Your task to perform on an android device: Open the calendar app, open the side menu, and click the "Day" option Image 0: 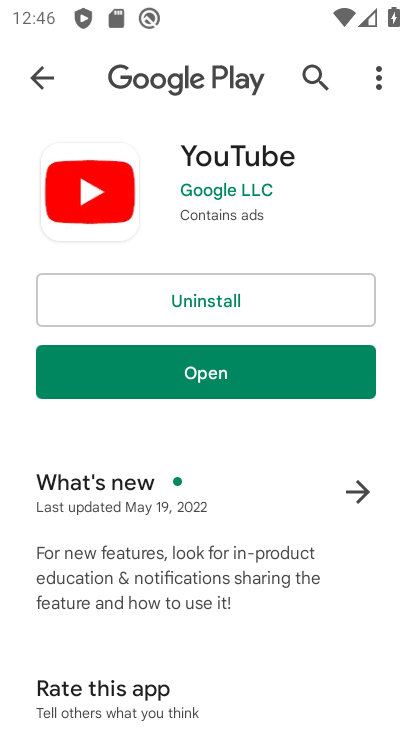
Step 0: press home button
Your task to perform on an android device: Open the calendar app, open the side menu, and click the "Day" option Image 1: 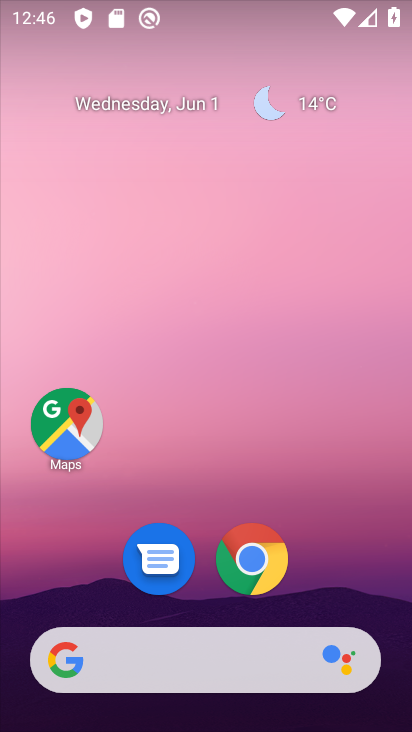
Step 1: drag from (380, 685) to (326, 167)
Your task to perform on an android device: Open the calendar app, open the side menu, and click the "Day" option Image 2: 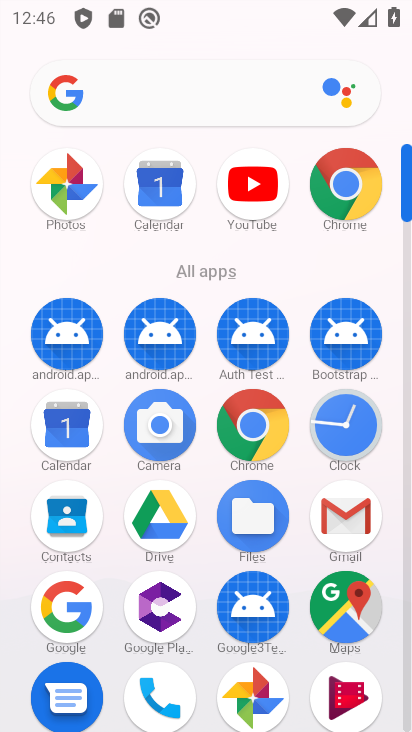
Step 2: click (75, 431)
Your task to perform on an android device: Open the calendar app, open the side menu, and click the "Day" option Image 3: 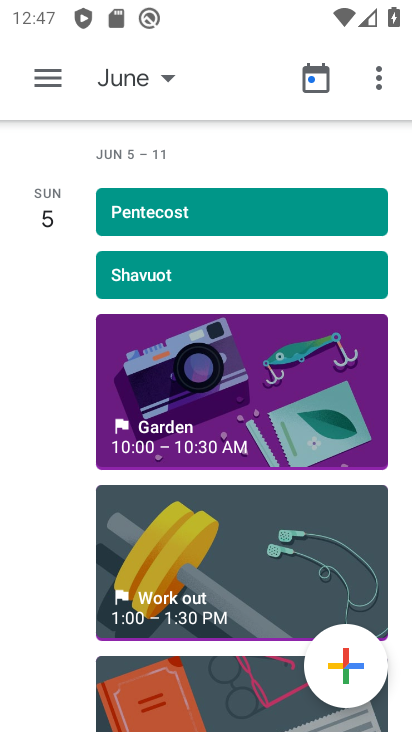
Step 3: click (51, 84)
Your task to perform on an android device: Open the calendar app, open the side menu, and click the "Day" option Image 4: 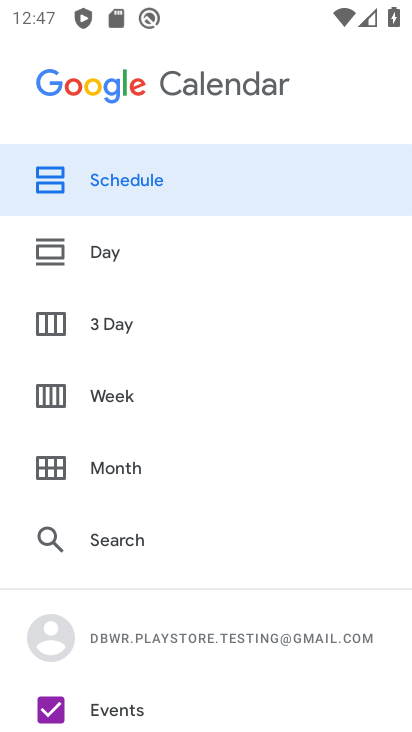
Step 4: click (110, 247)
Your task to perform on an android device: Open the calendar app, open the side menu, and click the "Day" option Image 5: 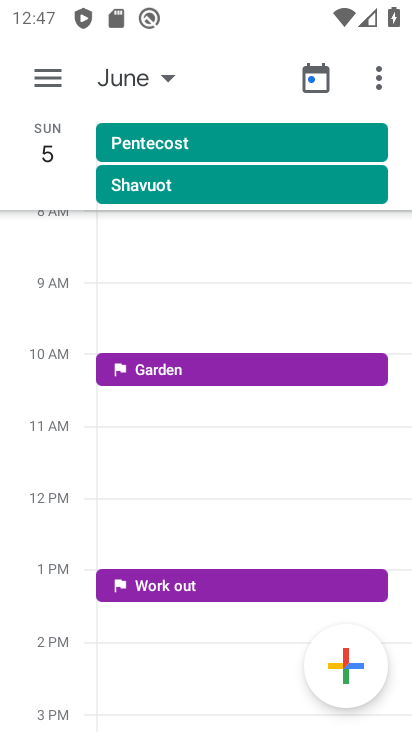
Step 5: task complete